Your task to perform on an android device: Open Yahoo.com Image 0: 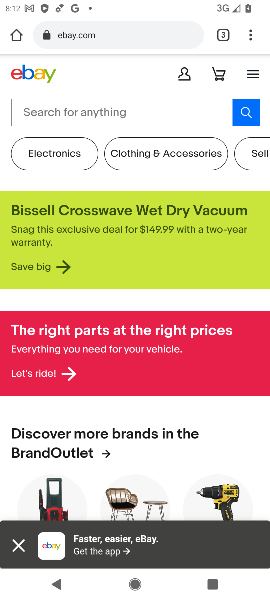
Step 0: press home button
Your task to perform on an android device: Open Yahoo.com Image 1: 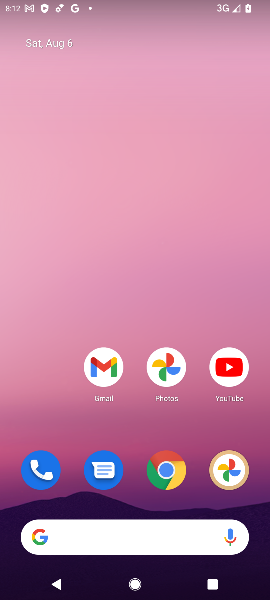
Step 1: click (168, 476)
Your task to perform on an android device: Open Yahoo.com Image 2: 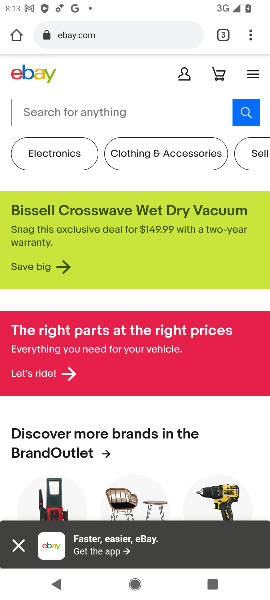
Step 2: drag from (224, 33) to (226, 165)
Your task to perform on an android device: Open Yahoo.com Image 3: 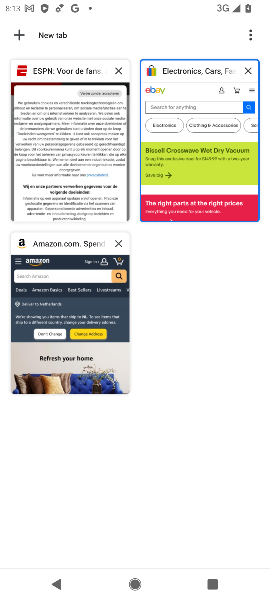
Step 3: click (44, 41)
Your task to perform on an android device: Open Yahoo.com Image 4: 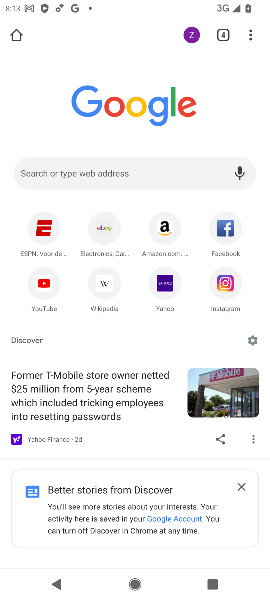
Step 4: click (184, 178)
Your task to perform on an android device: Open Yahoo.com Image 5: 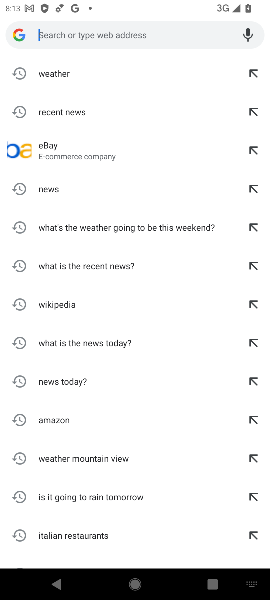
Step 5: type "yahoo"
Your task to perform on an android device: Open Yahoo.com Image 6: 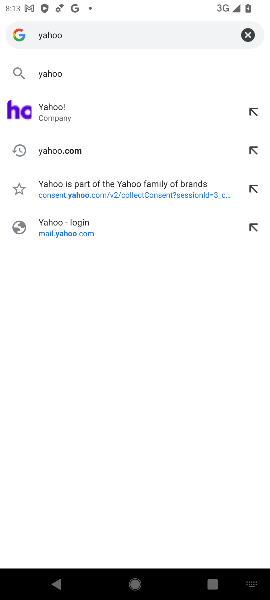
Step 6: click (81, 224)
Your task to perform on an android device: Open Yahoo.com Image 7: 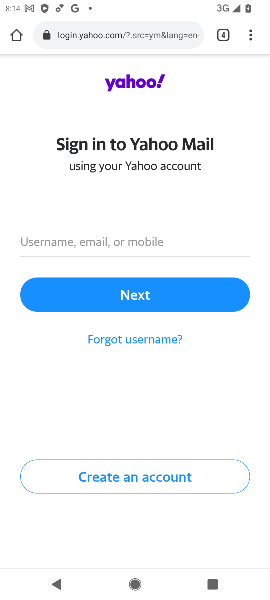
Step 7: task complete